Your task to perform on an android device: What is the news today? Image 0: 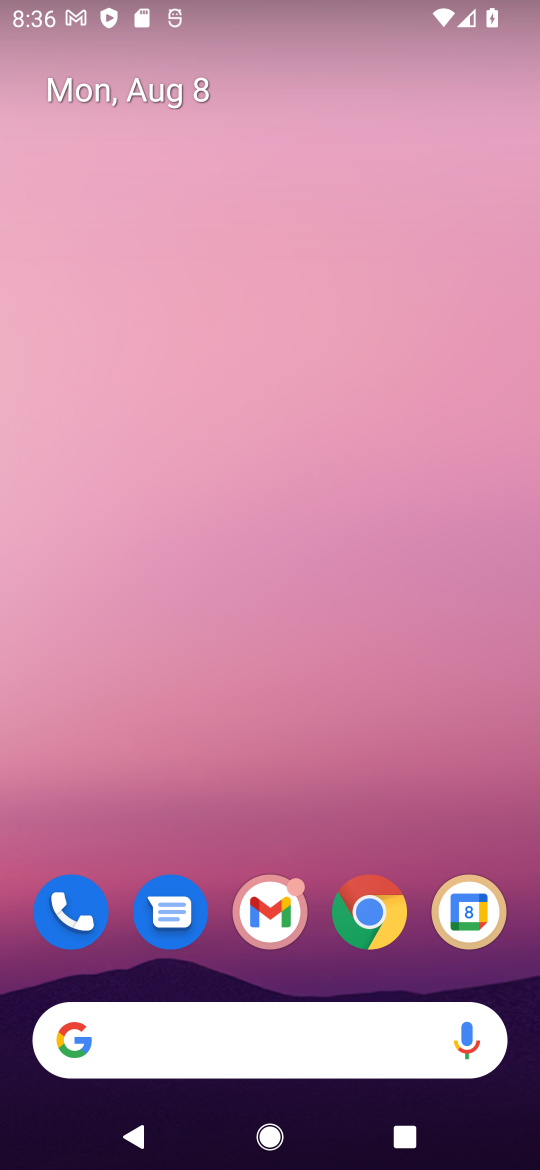
Step 0: drag from (515, 963) to (227, 88)
Your task to perform on an android device: What is the news today? Image 1: 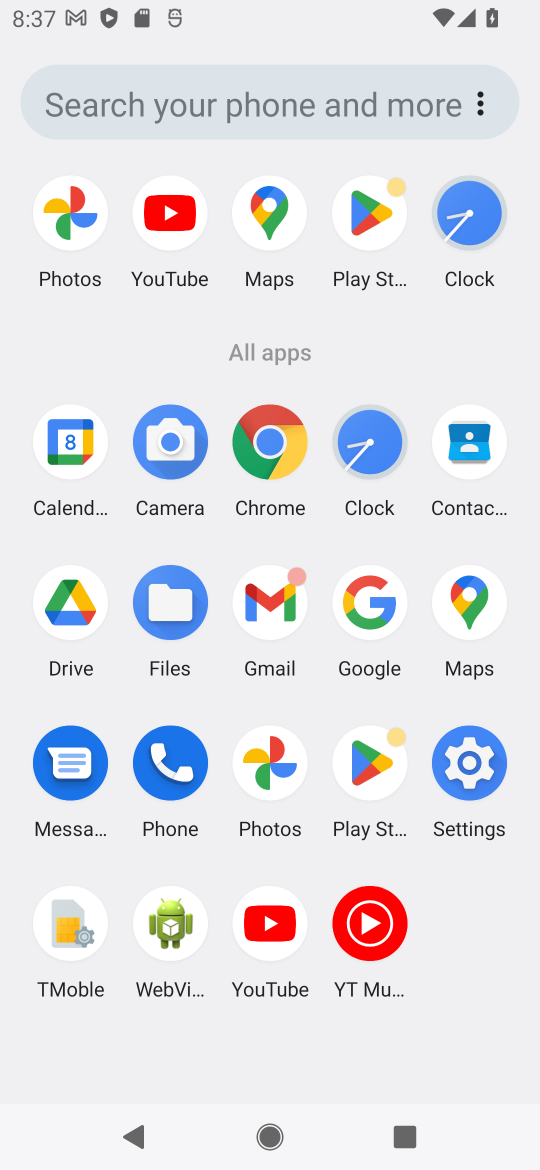
Step 1: click (384, 599)
Your task to perform on an android device: What is the news today? Image 2: 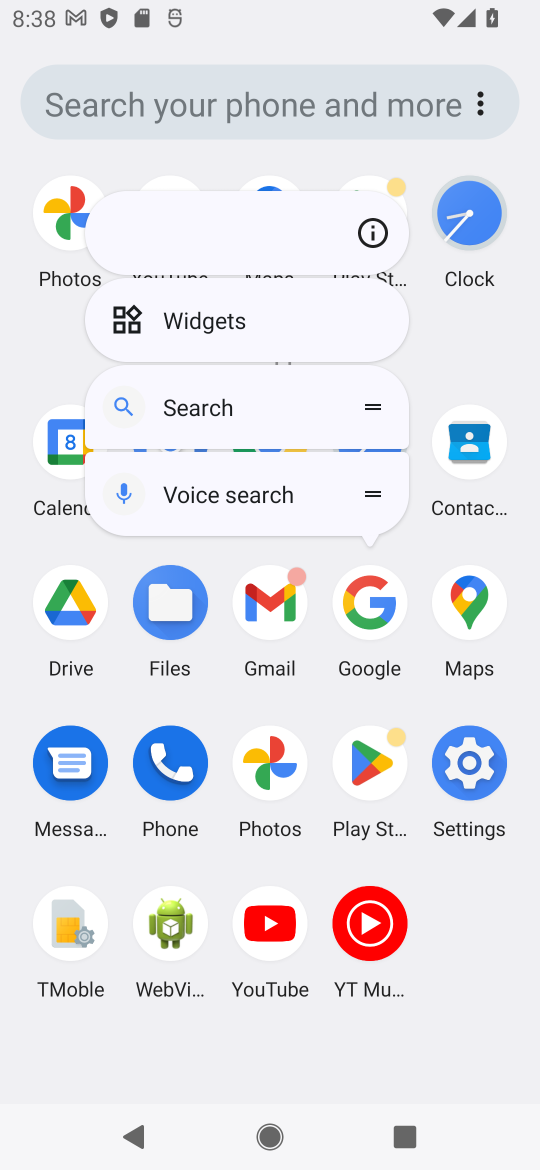
Step 2: click (384, 599)
Your task to perform on an android device: What is the news today? Image 3: 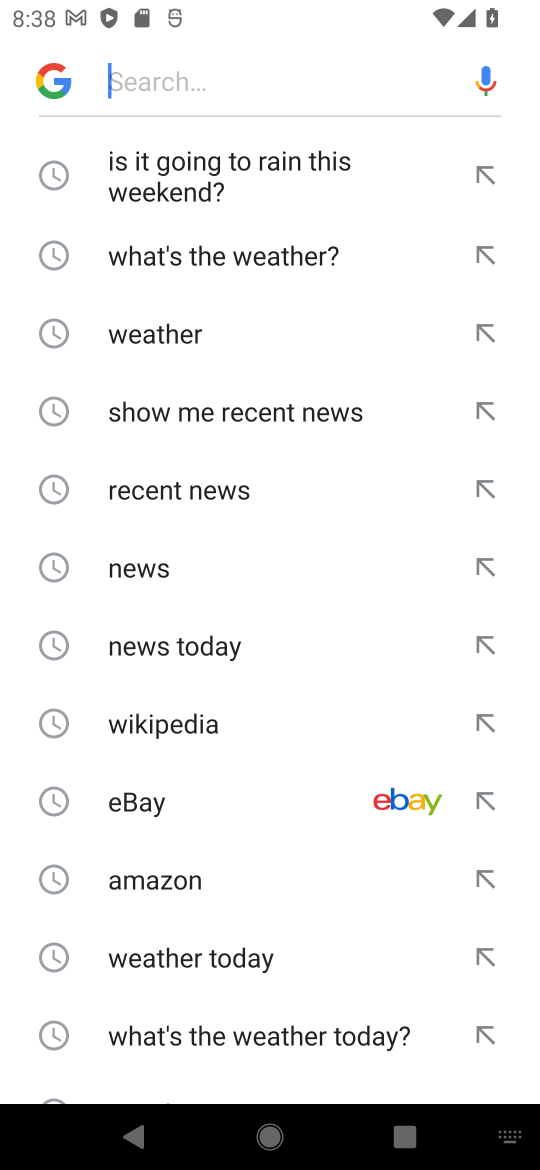
Step 3: type "What is the news today?"
Your task to perform on an android device: What is the news today? Image 4: 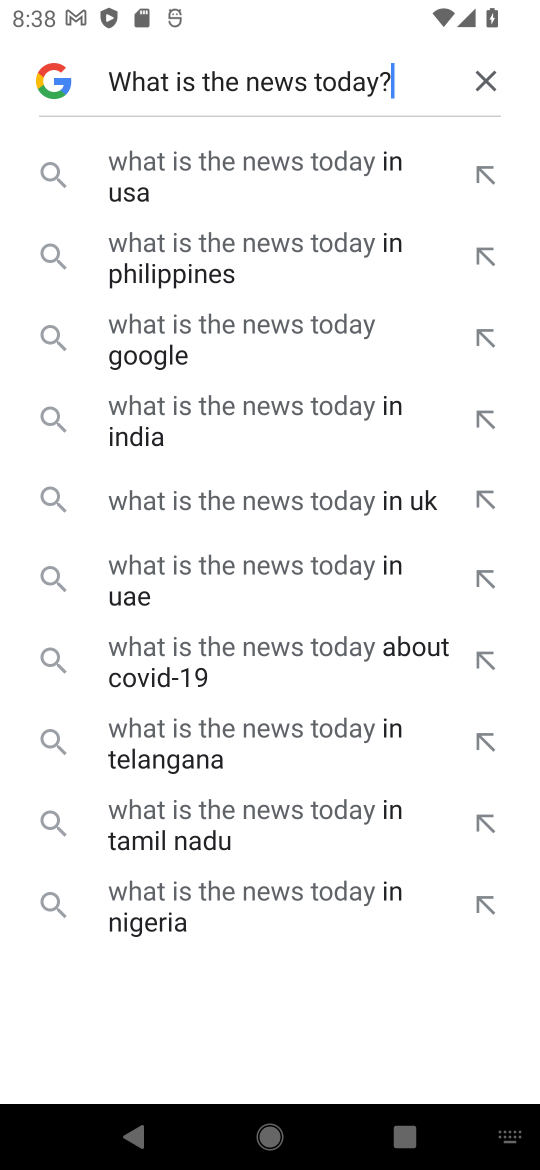
Step 4: task complete